Your task to perform on an android device: View the shopping cart on target.com. Add "razer deathadder" to the cart on target.com Image 0: 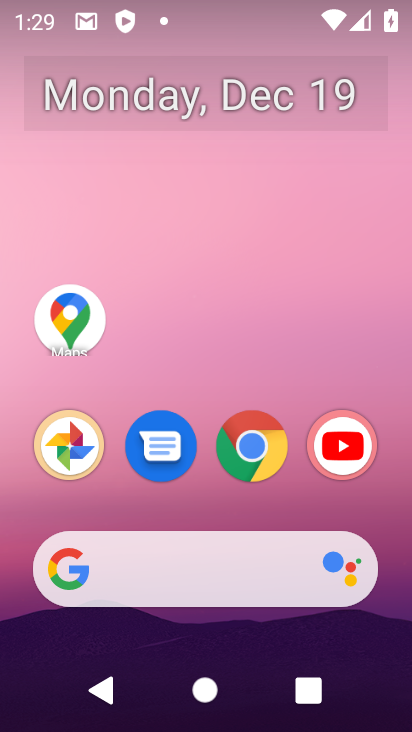
Step 0: click (258, 449)
Your task to perform on an android device: View the shopping cart on target.com. Add "razer deathadder" to the cart on target.com Image 1: 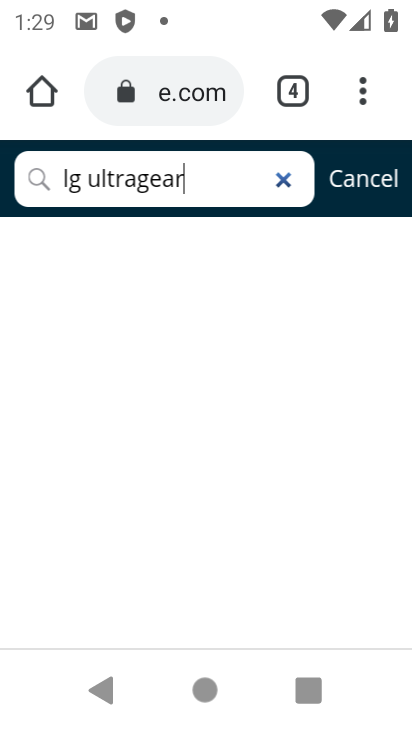
Step 1: click (193, 101)
Your task to perform on an android device: View the shopping cart on target.com. Add "razer deathadder" to the cart on target.com Image 2: 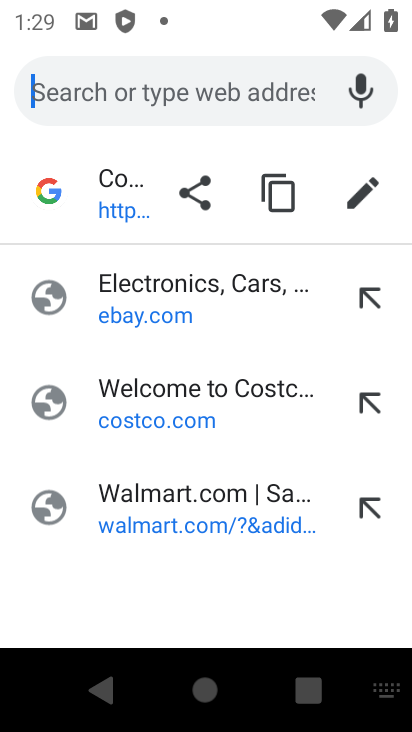
Step 2: type "target"
Your task to perform on an android device: View the shopping cart on target.com. Add "razer deathadder" to the cart on target.com Image 3: 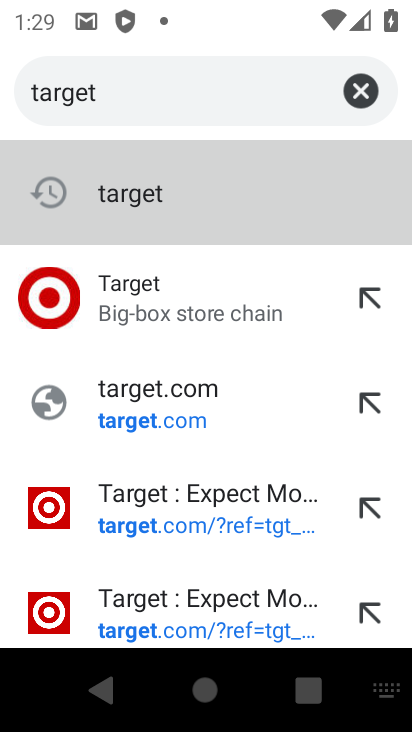
Step 3: click (240, 316)
Your task to perform on an android device: View the shopping cart on target.com. Add "razer deathadder" to the cart on target.com Image 4: 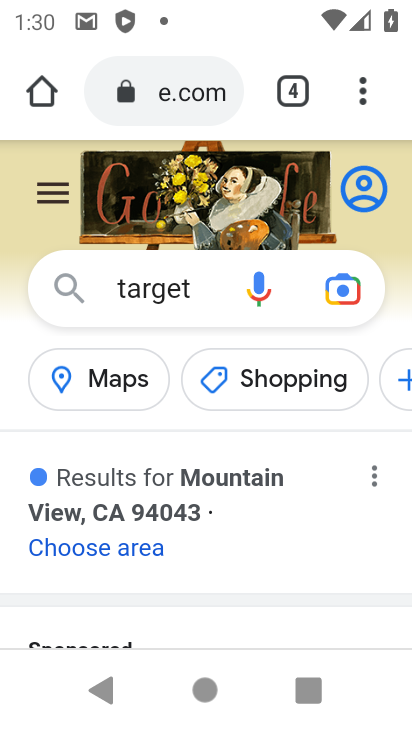
Step 4: drag from (161, 635) to (197, 266)
Your task to perform on an android device: View the shopping cart on target.com. Add "razer deathadder" to the cart on target.com Image 5: 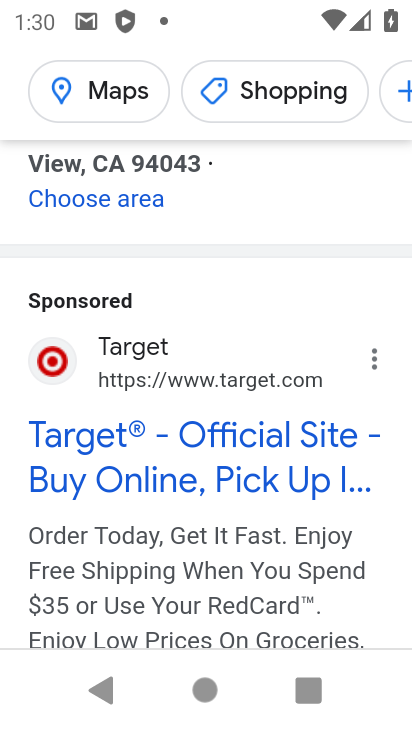
Step 5: click (191, 503)
Your task to perform on an android device: View the shopping cart on target.com. Add "razer deathadder" to the cart on target.com Image 6: 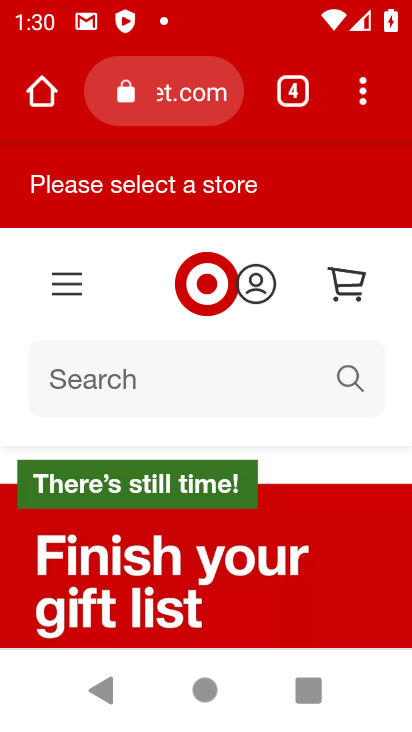
Step 6: click (359, 306)
Your task to perform on an android device: View the shopping cart on target.com. Add "razer deathadder" to the cart on target.com Image 7: 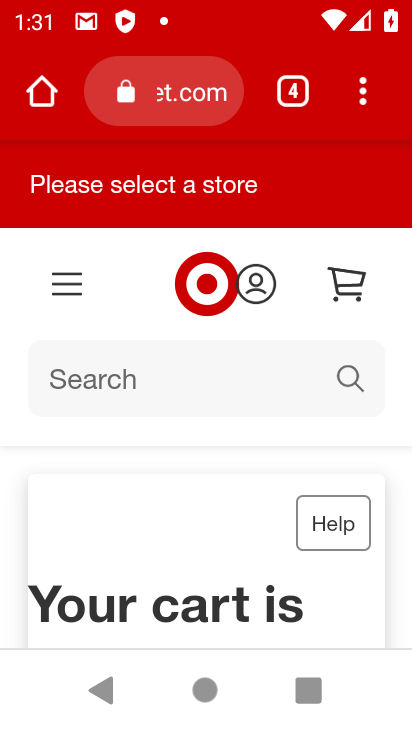
Step 7: click (90, 364)
Your task to perform on an android device: View the shopping cart on target.com. Add "razer deathadder" to the cart on target.com Image 8: 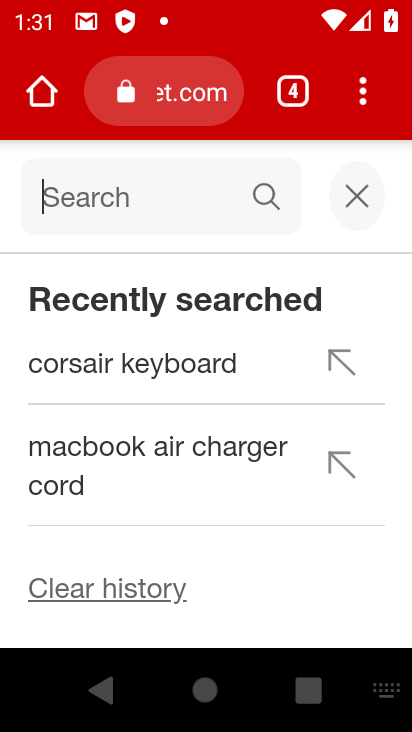
Step 8: type "razer deathadder"
Your task to perform on an android device: View the shopping cart on target.com. Add "razer deathadder" to the cart on target.com Image 9: 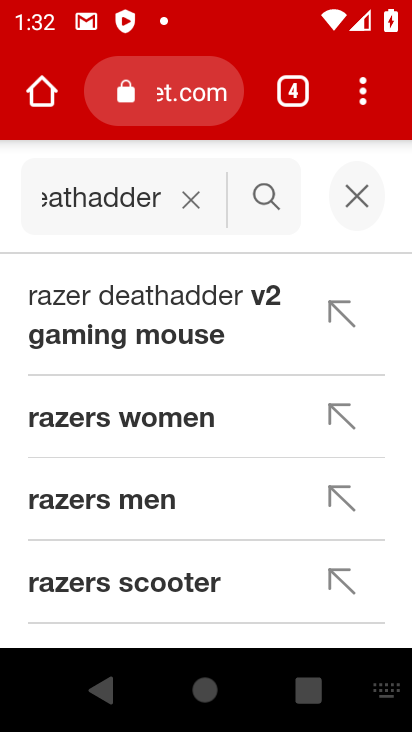
Step 9: click (210, 322)
Your task to perform on an android device: View the shopping cart on target.com. Add "razer deathadder" to the cart on target.com Image 10: 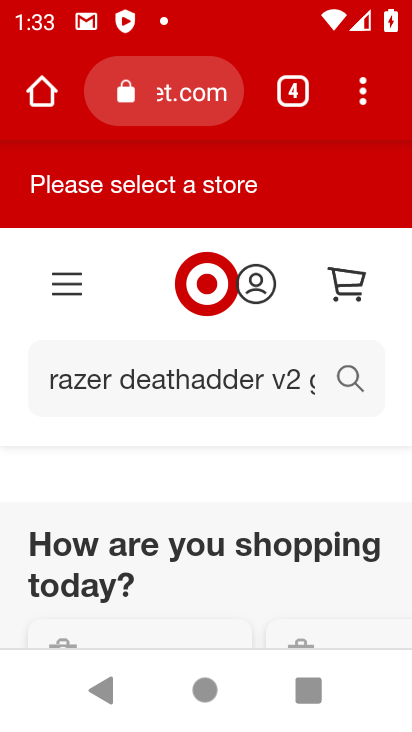
Step 10: drag from (282, 550) to (242, 27)
Your task to perform on an android device: View the shopping cart on target.com. Add "razer deathadder" to the cart on target.com Image 11: 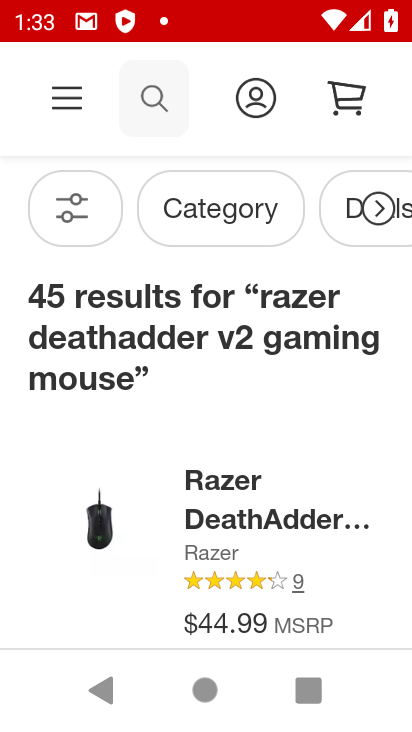
Step 11: click (226, 471)
Your task to perform on an android device: View the shopping cart on target.com. Add "razer deathadder" to the cart on target.com Image 12: 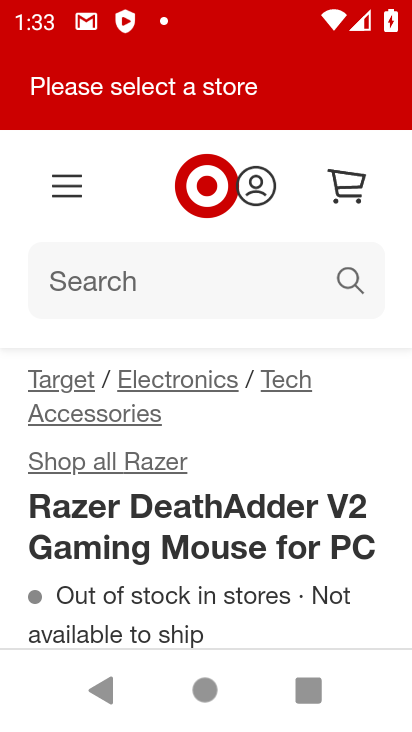
Step 12: drag from (255, 586) to (228, 353)
Your task to perform on an android device: View the shopping cart on target.com. Add "razer deathadder" to the cart on target.com Image 13: 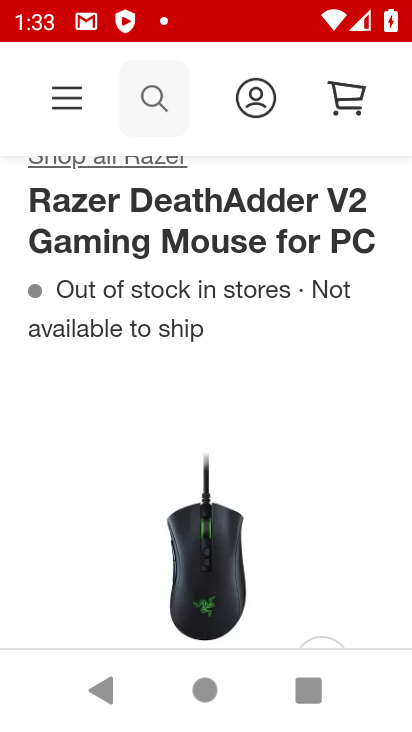
Step 13: drag from (292, 603) to (279, 260)
Your task to perform on an android device: View the shopping cart on target.com. Add "razer deathadder" to the cart on target.com Image 14: 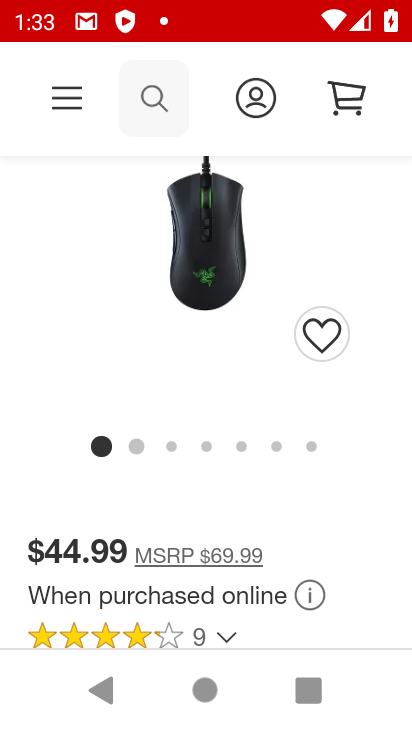
Step 14: drag from (286, 522) to (257, 269)
Your task to perform on an android device: View the shopping cart on target.com. Add "razer deathadder" to the cart on target.com Image 15: 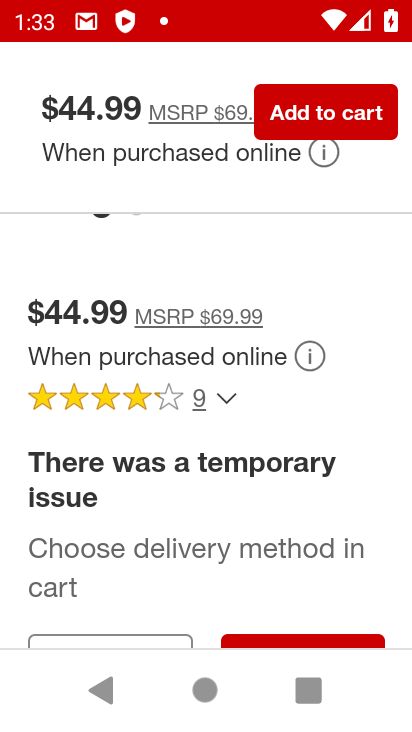
Step 15: click (300, 630)
Your task to perform on an android device: View the shopping cart on target.com. Add "razer deathadder" to the cart on target.com Image 16: 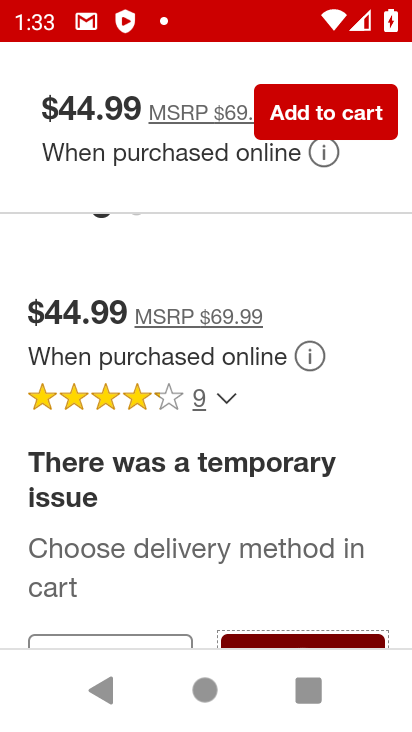
Step 16: task complete